Your task to perform on an android device: open sync settings in chrome Image 0: 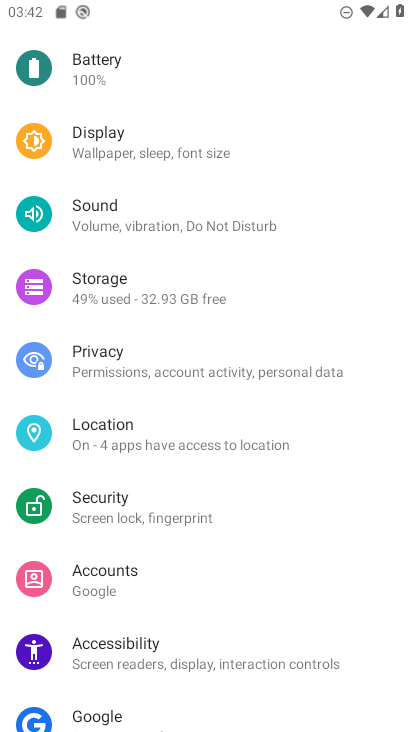
Step 0: press home button
Your task to perform on an android device: open sync settings in chrome Image 1: 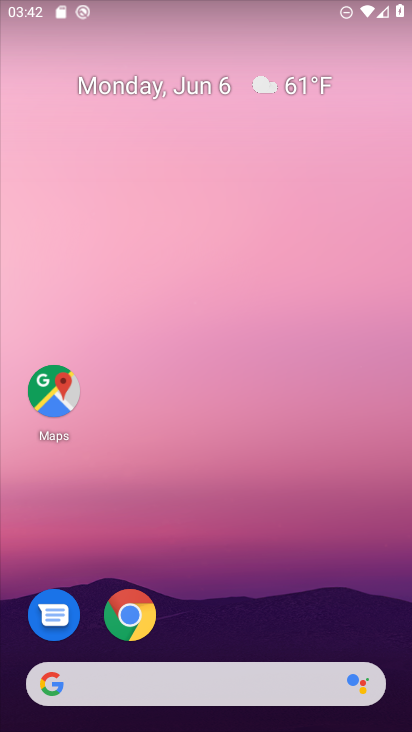
Step 1: click (133, 612)
Your task to perform on an android device: open sync settings in chrome Image 2: 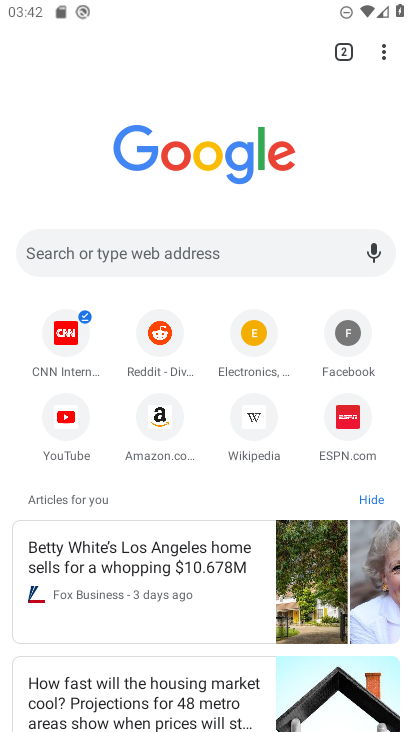
Step 2: click (384, 59)
Your task to perform on an android device: open sync settings in chrome Image 3: 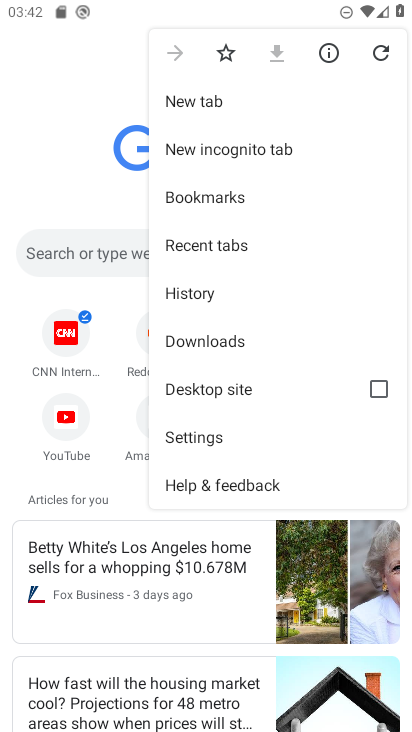
Step 3: click (204, 435)
Your task to perform on an android device: open sync settings in chrome Image 4: 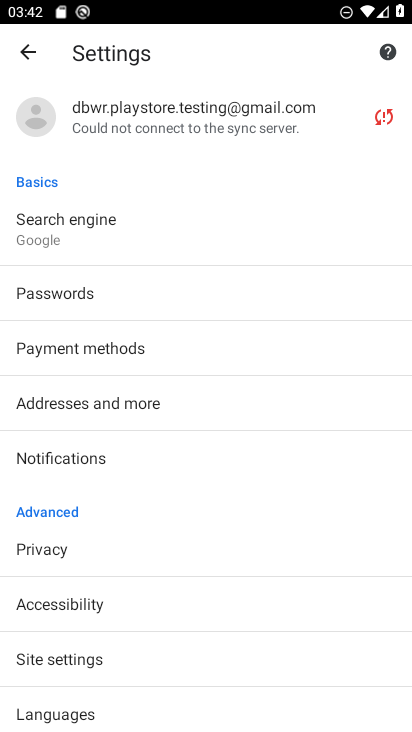
Step 4: click (128, 113)
Your task to perform on an android device: open sync settings in chrome Image 5: 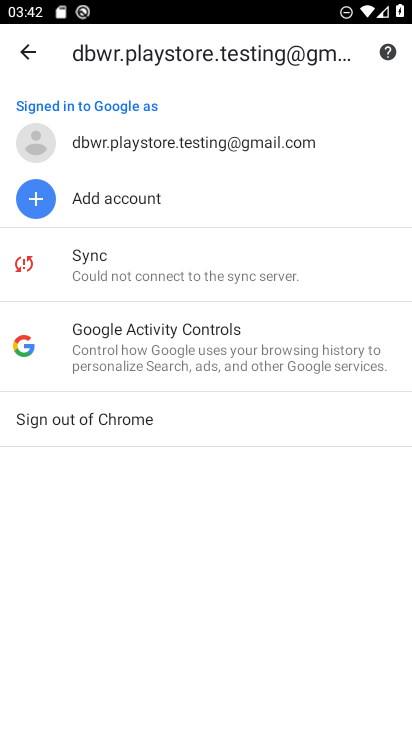
Step 5: click (95, 258)
Your task to perform on an android device: open sync settings in chrome Image 6: 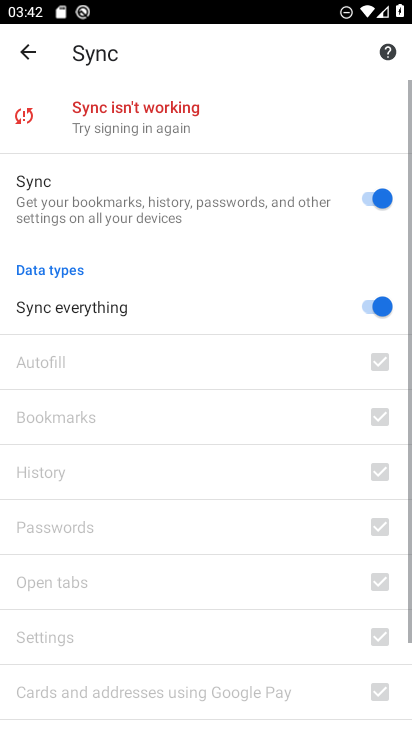
Step 6: task complete